Your task to perform on an android device: Open network settings Image 0: 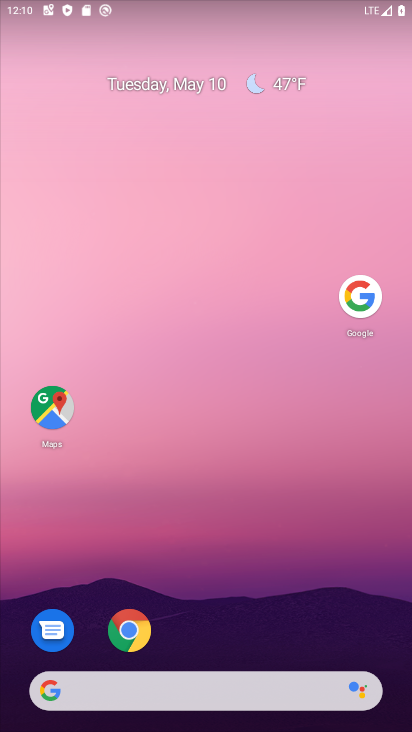
Step 0: press home button
Your task to perform on an android device: Open network settings Image 1: 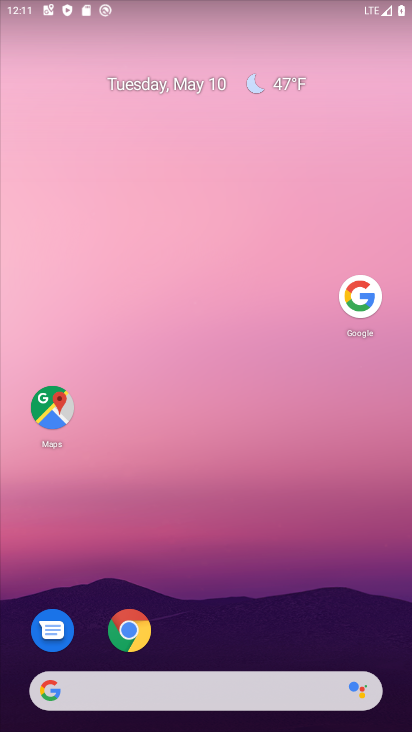
Step 1: drag from (180, 684) to (269, 126)
Your task to perform on an android device: Open network settings Image 2: 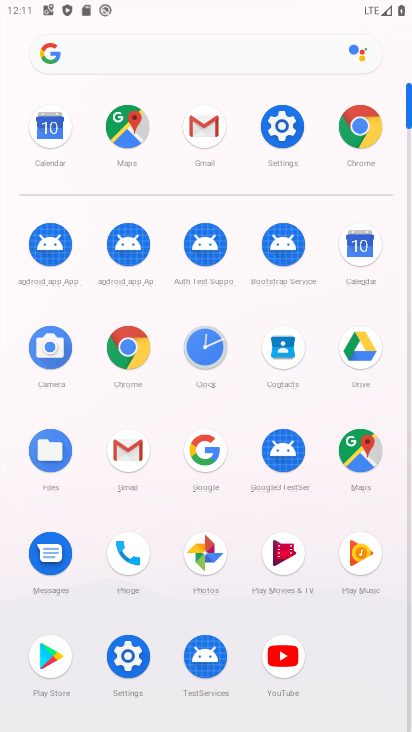
Step 2: click (289, 124)
Your task to perform on an android device: Open network settings Image 3: 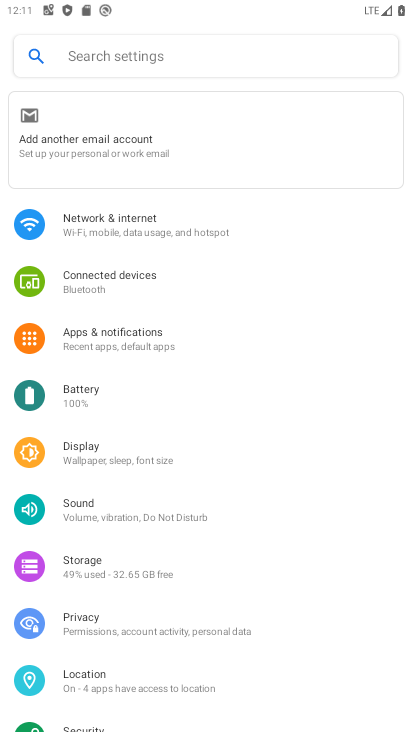
Step 3: click (126, 221)
Your task to perform on an android device: Open network settings Image 4: 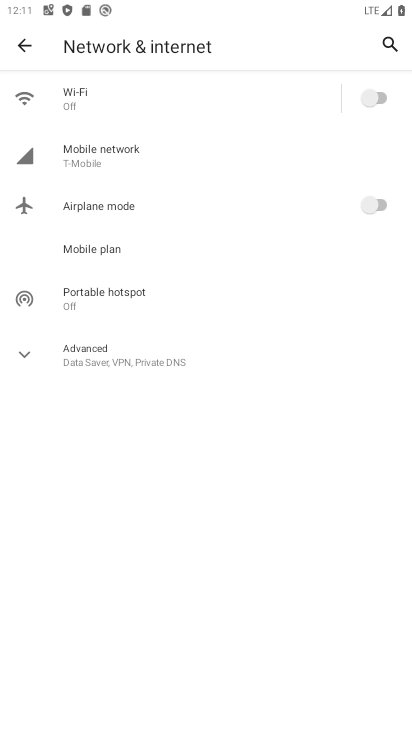
Step 4: task complete